Your task to perform on an android device: delete browsing data in the chrome app Image 0: 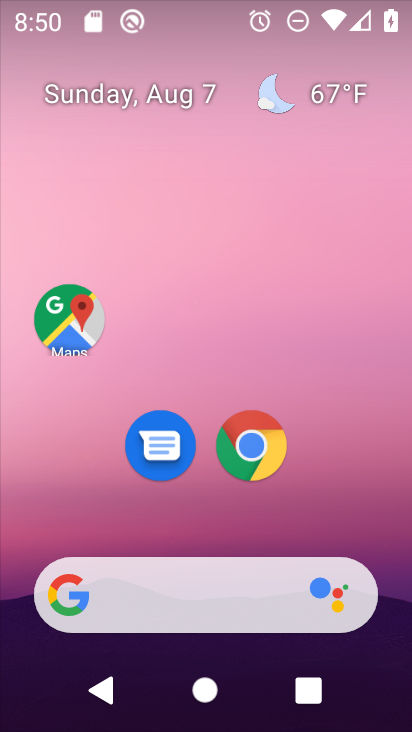
Step 0: click (254, 441)
Your task to perform on an android device: delete browsing data in the chrome app Image 1: 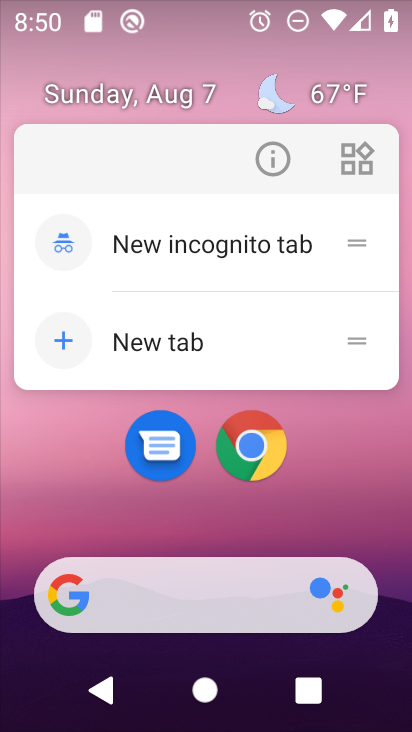
Step 1: click (323, 494)
Your task to perform on an android device: delete browsing data in the chrome app Image 2: 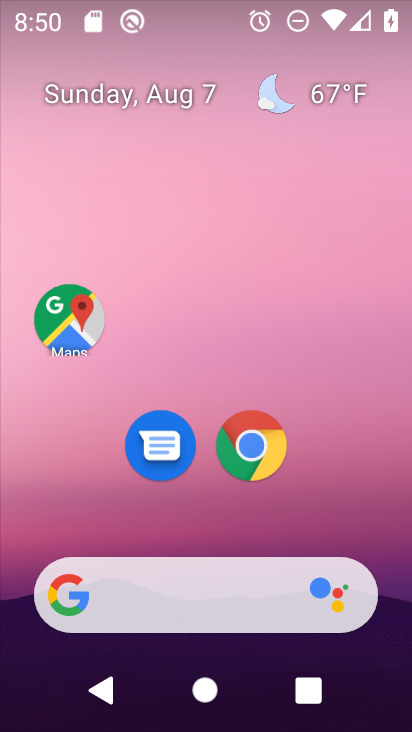
Step 2: drag from (309, 526) to (342, 2)
Your task to perform on an android device: delete browsing data in the chrome app Image 3: 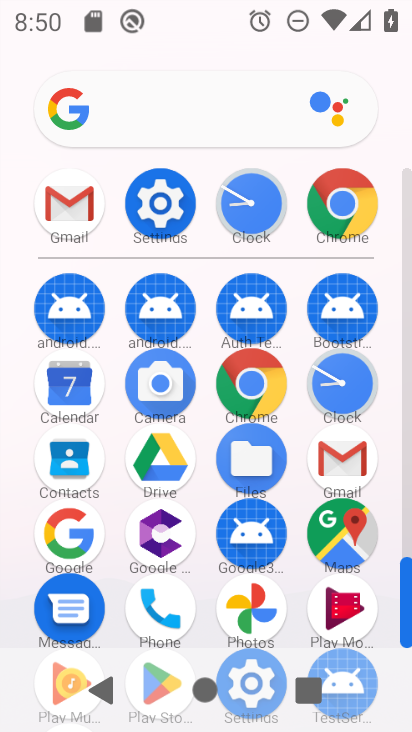
Step 3: click (336, 192)
Your task to perform on an android device: delete browsing data in the chrome app Image 4: 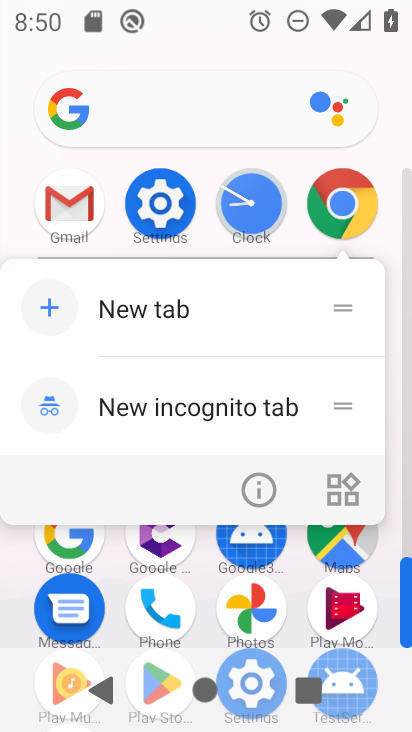
Step 4: click (340, 196)
Your task to perform on an android device: delete browsing data in the chrome app Image 5: 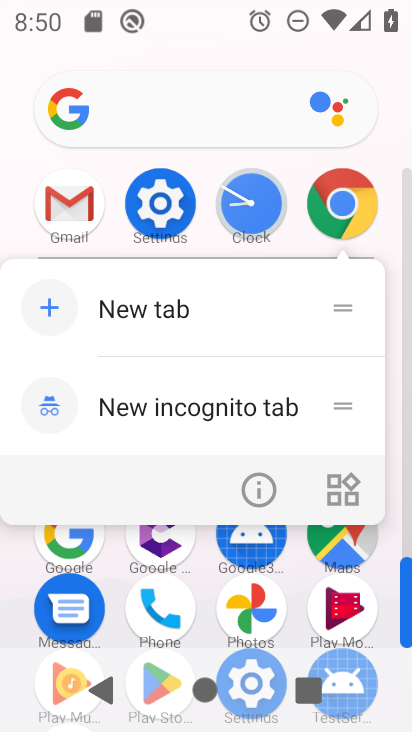
Step 5: click (340, 196)
Your task to perform on an android device: delete browsing data in the chrome app Image 6: 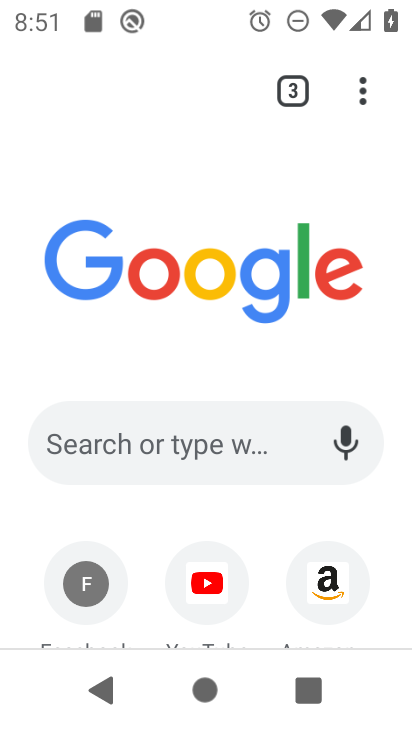
Step 6: click (360, 87)
Your task to perform on an android device: delete browsing data in the chrome app Image 7: 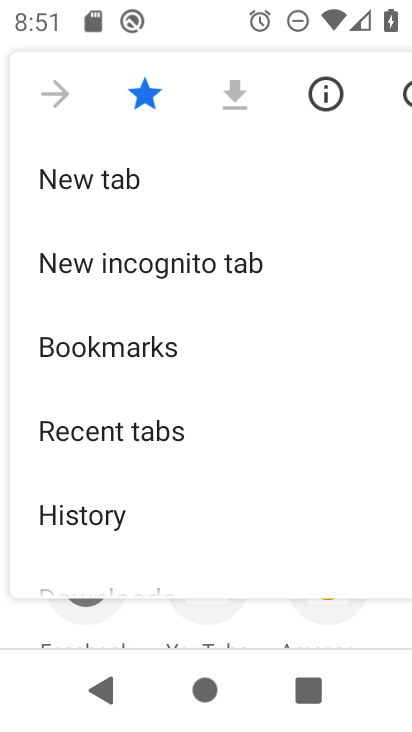
Step 7: click (139, 520)
Your task to perform on an android device: delete browsing data in the chrome app Image 8: 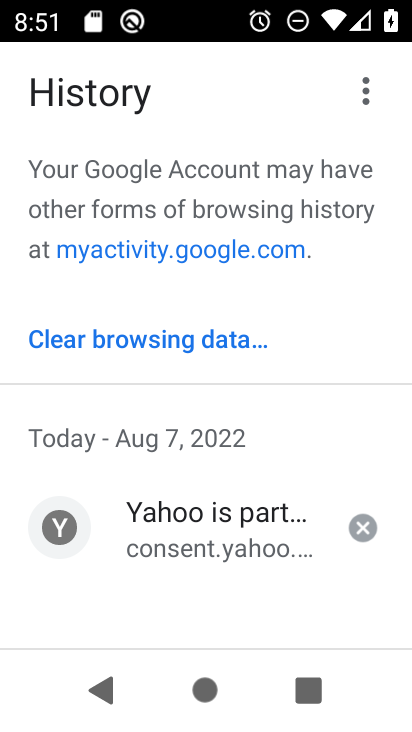
Step 8: click (148, 340)
Your task to perform on an android device: delete browsing data in the chrome app Image 9: 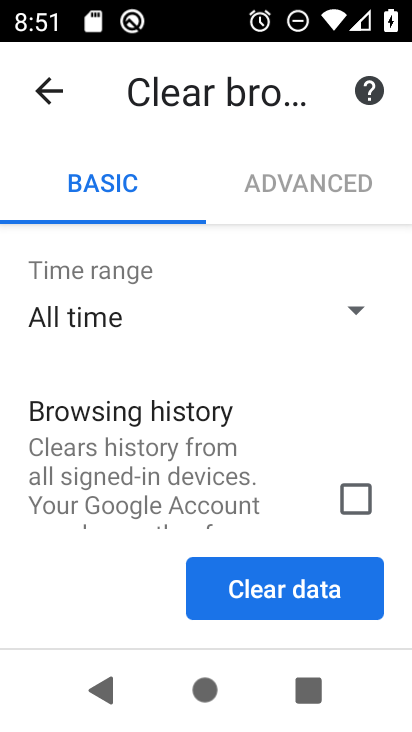
Step 9: click (356, 497)
Your task to perform on an android device: delete browsing data in the chrome app Image 10: 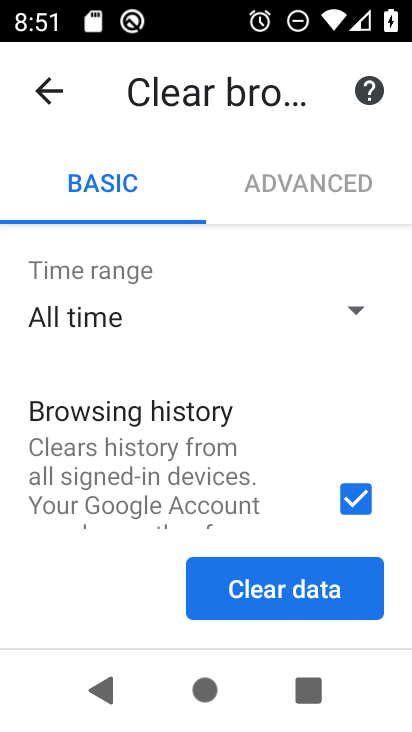
Step 10: drag from (272, 508) to (266, 190)
Your task to perform on an android device: delete browsing data in the chrome app Image 11: 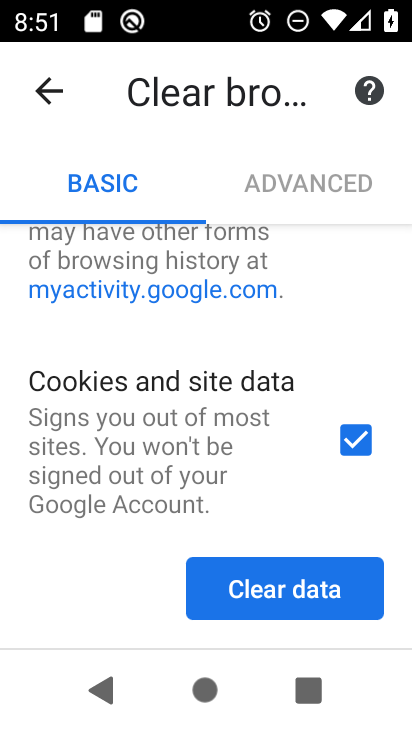
Step 11: click (350, 437)
Your task to perform on an android device: delete browsing data in the chrome app Image 12: 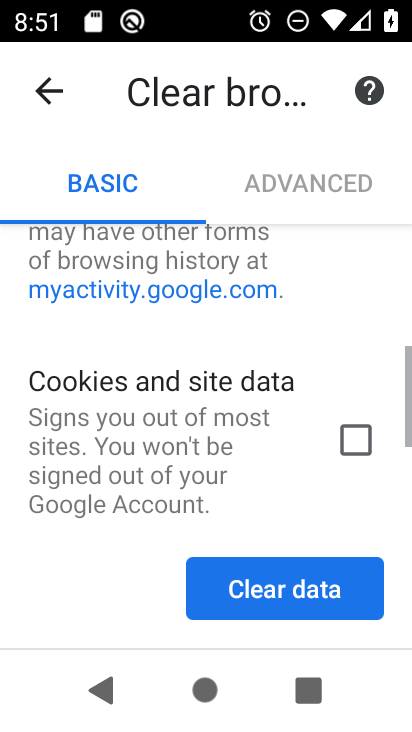
Step 12: drag from (247, 496) to (273, 187)
Your task to perform on an android device: delete browsing data in the chrome app Image 13: 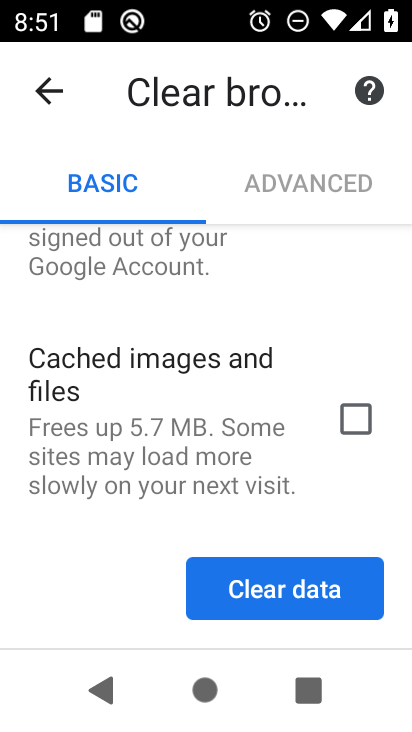
Step 13: click (286, 590)
Your task to perform on an android device: delete browsing data in the chrome app Image 14: 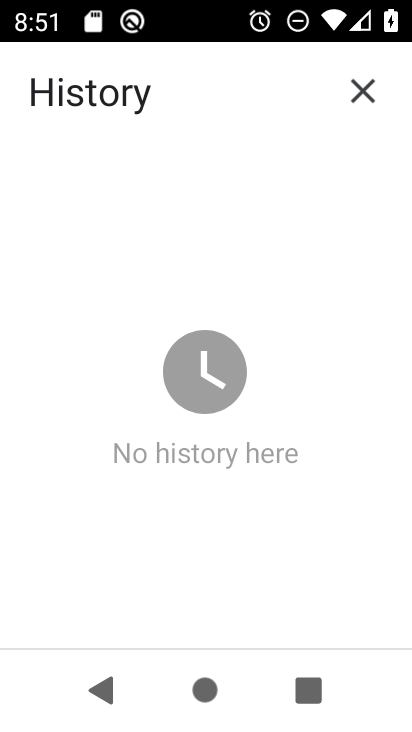
Step 14: task complete